Your task to perform on an android device: Open notification settings Image 0: 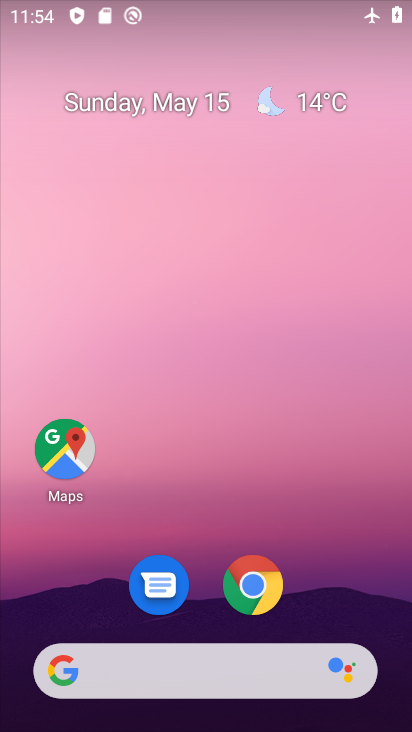
Step 0: drag from (219, 370) to (222, 25)
Your task to perform on an android device: Open notification settings Image 1: 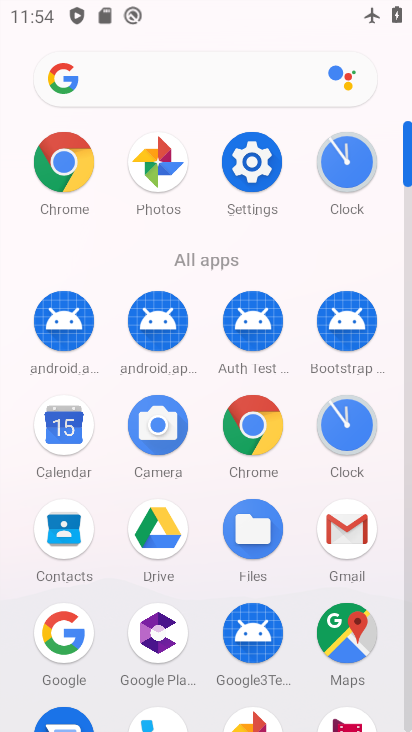
Step 1: click (246, 166)
Your task to perform on an android device: Open notification settings Image 2: 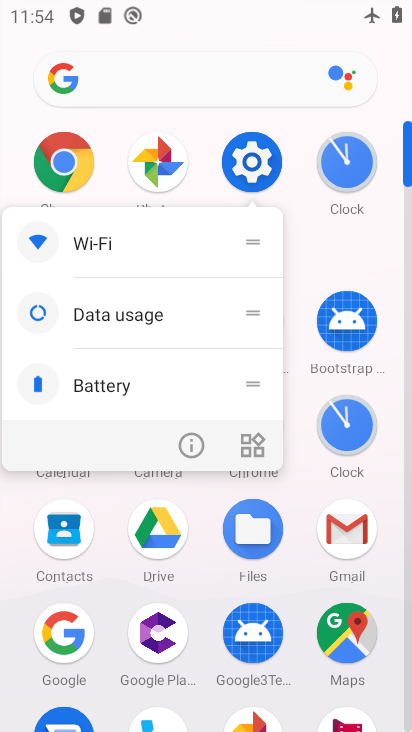
Step 2: click (246, 153)
Your task to perform on an android device: Open notification settings Image 3: 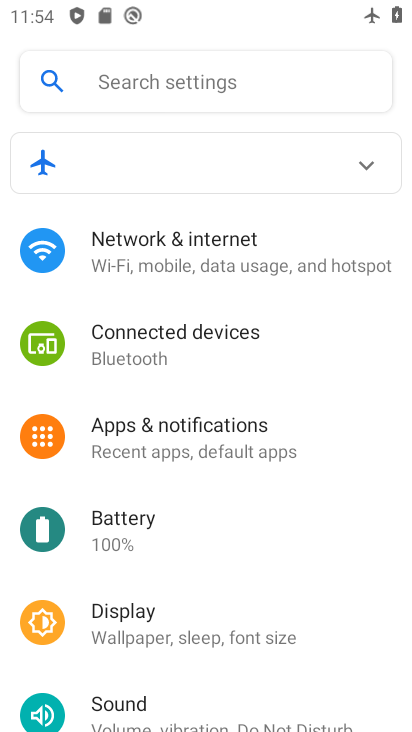
Step 3: click (188, 427)
Your task to perform on an android device: Open notification settings Image 4: 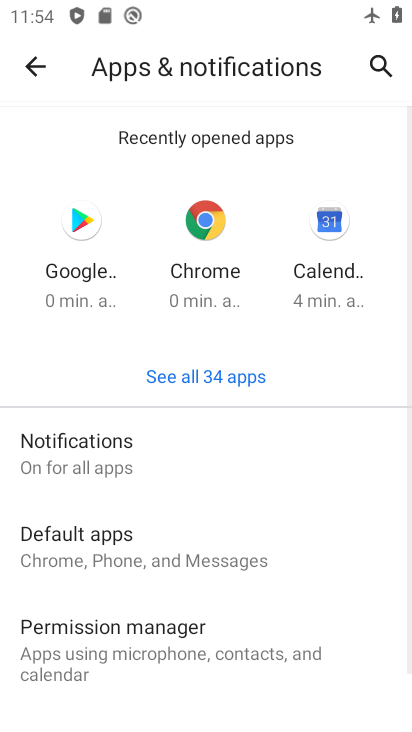
Step 4: click (157, 447)
Your task to perform on an android device: Open notification settings Image 5: 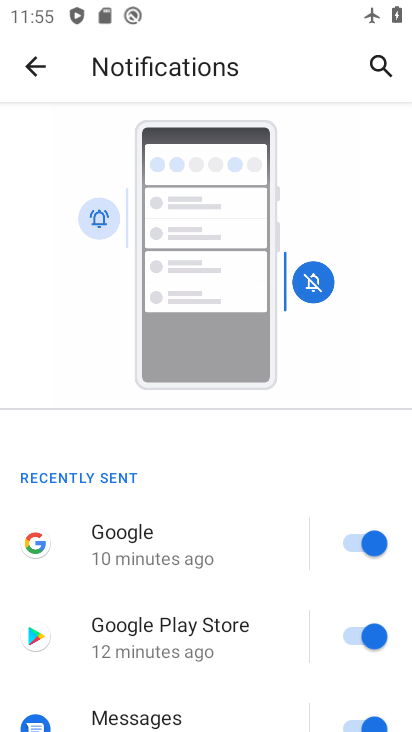
Step 5: task complete